Your task to perform on an android device: turn off javascript in the chrome app Image 0: 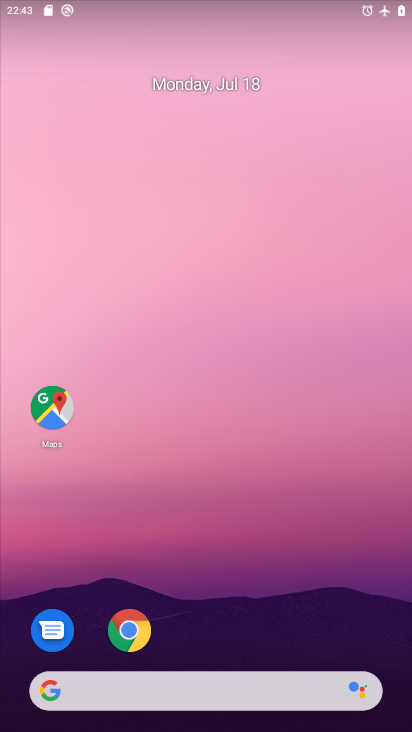
Step 0: drag from (211, 600) to (218, 298)
Your task to perform on an android device: turn off javascript in the chrome app Image 1: 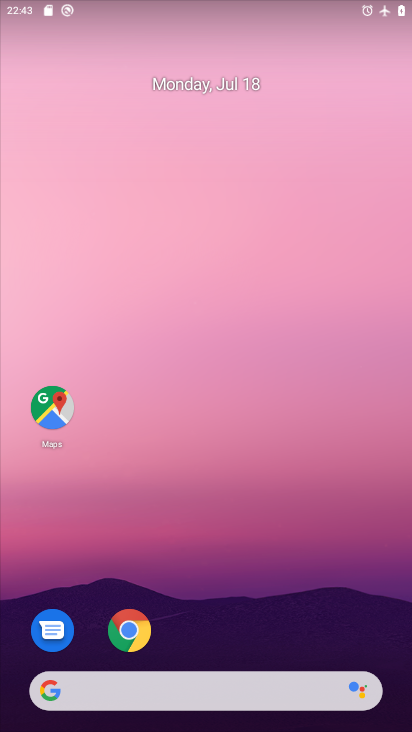
Step 1: click (124, 640)
Your task to perform on an android device: turn off javascript in the chrome app Image 2: 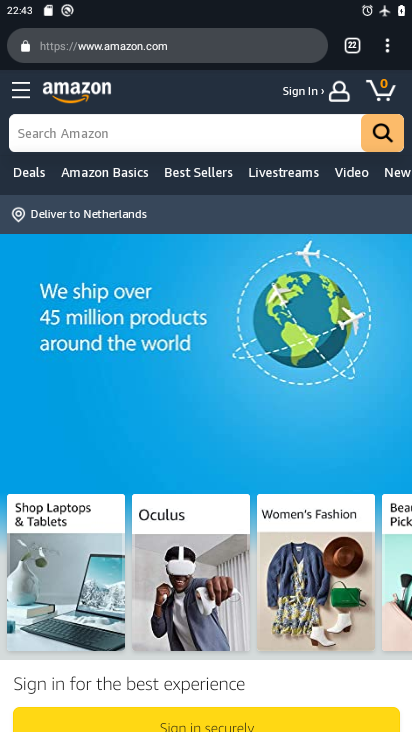
Step 2: click (395, 41)
Your task to perform on an android device: turn off javascript in the chrome app Image 3: 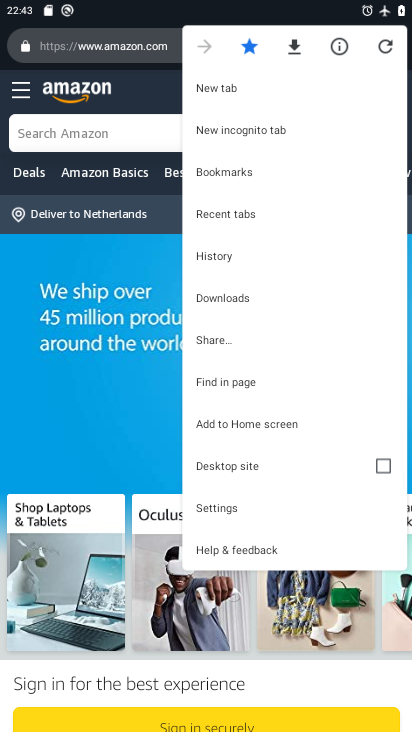
Step 3: click (213, 497)
Your task to perform on an android device: turn off javascript in the chrome app Image 4: 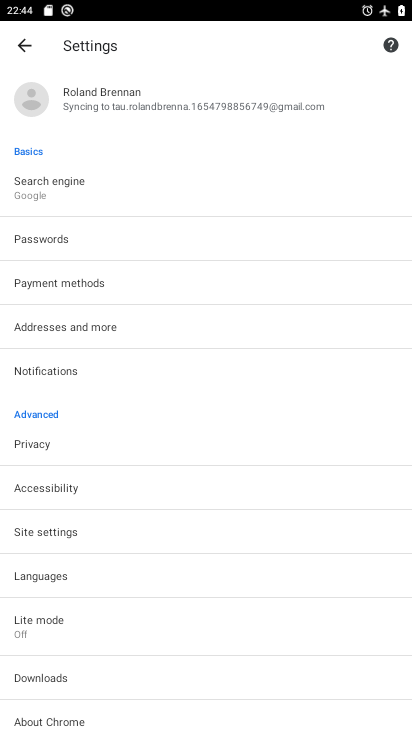
Step 4: click (106, 534)
Your task to perform on an android device: turn off javascript in the chrome app Image 5: 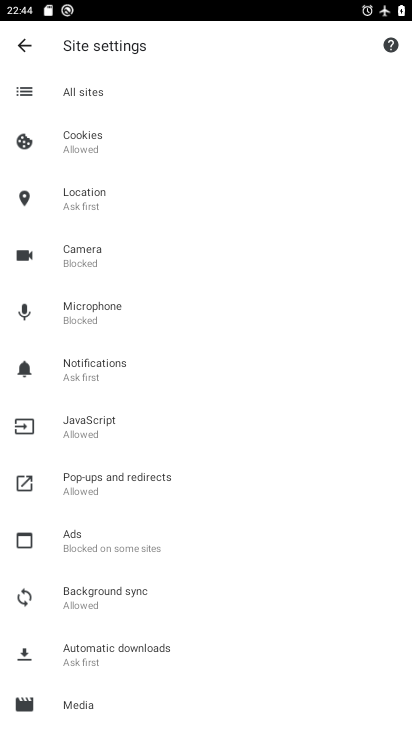
Step 5: click (107, 410)
Your task to perform on an android device: turn off javascript in the chrome app Image 6: 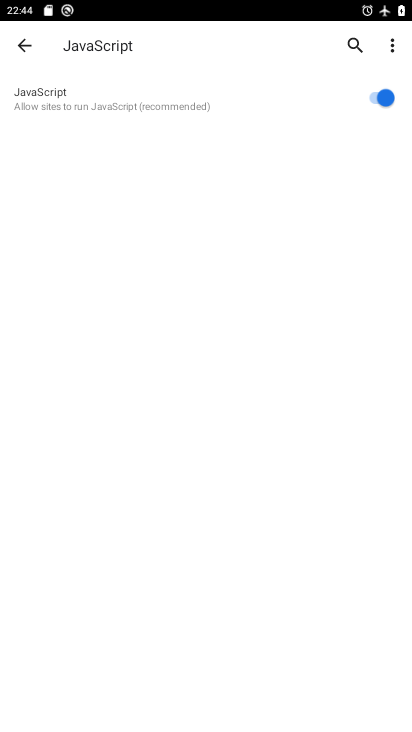
Step 6: click (374, 93)
Your task to perform on an android device: turn off javascript in the chrome app Image 7: 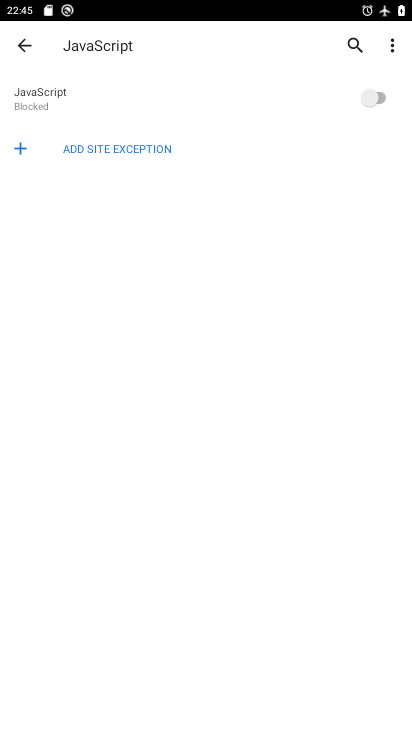
Step 7: task complete